Your task to perform on an android device: clear history in the chrome app Image 0: 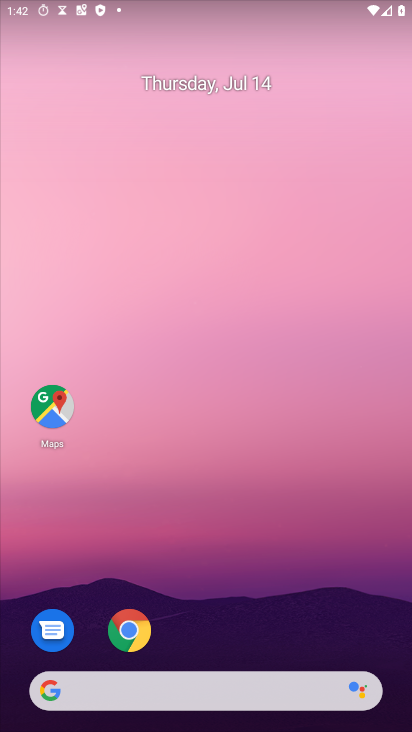
Step 0: click (142, 631)
Your task to perform on an android device: clear history in the chrome app Image 1: 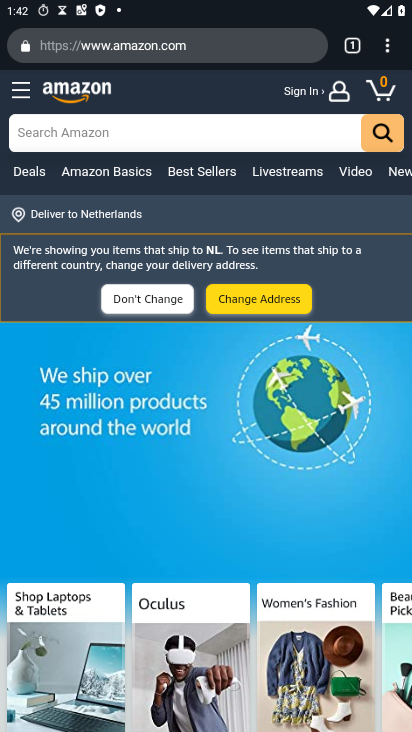
Step 1: drag from (384, 53) to (226, 260)
Your task to perform on an android device: clear history in the chrome app Image 2: 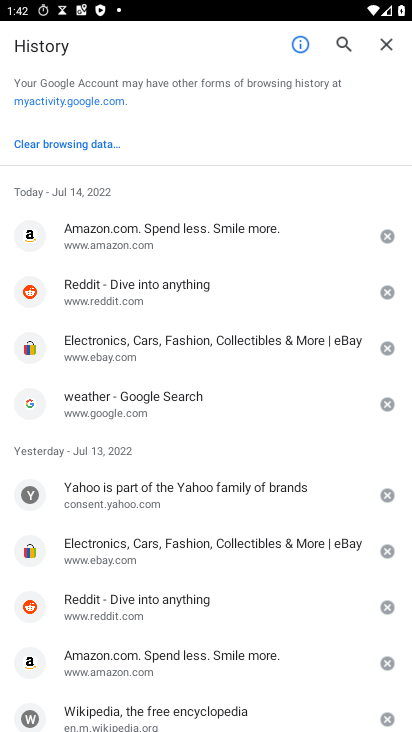
Step 2: click (79, 140)
Your task to perform on an android device: clear history in the chrome app Image 3: 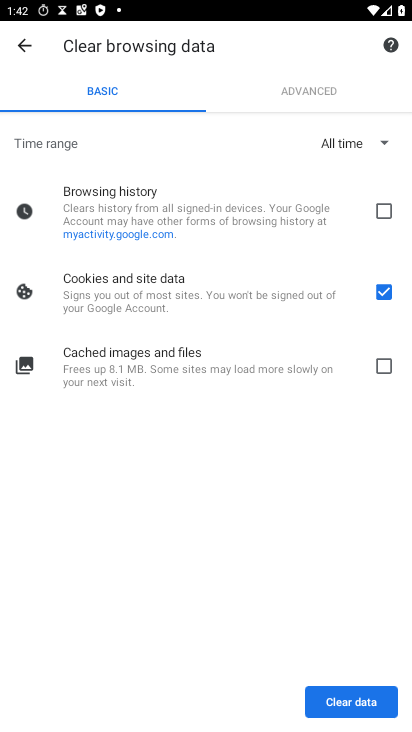
Step 3: click (384, 208)
Your task to perform on an android device: clear history in the chrome app Image 4: 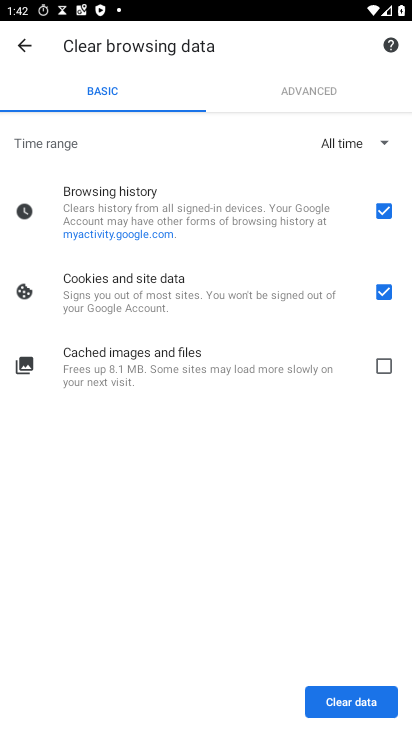
Step 4: click (329, 702)
Your task to perform on an android device: clear history in the chrome app Image 5: 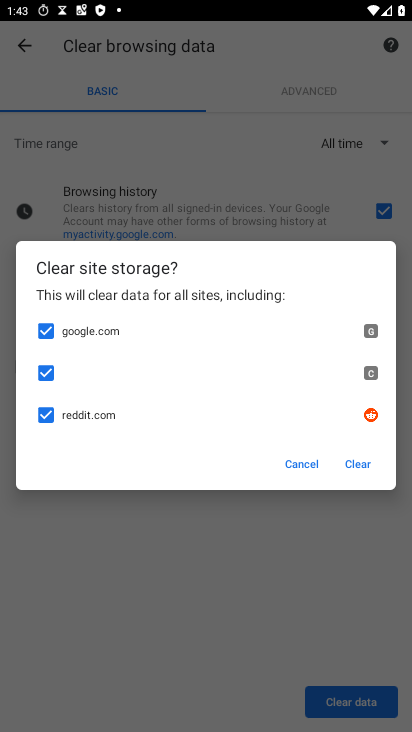
Step 5: click (362, 464)
Your task to perform on an android device: clear history in the chrome app Image 6: 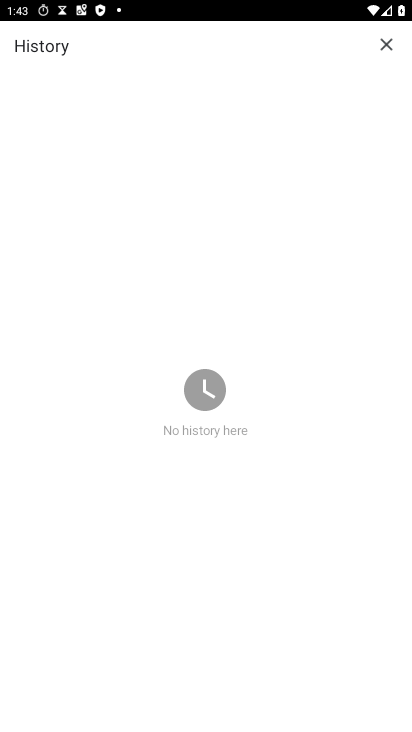
Step 6: task complete